Your task to perform on an android device: Open battery settings Image 0: 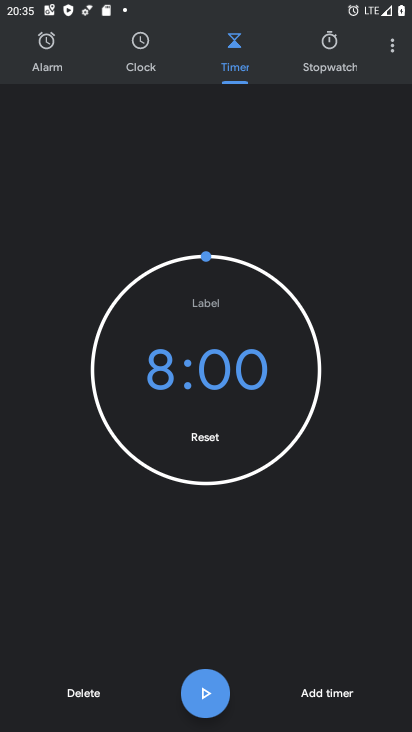
Step 0: press home button
Your task to perform on an android device: Open battery settings Image 1: 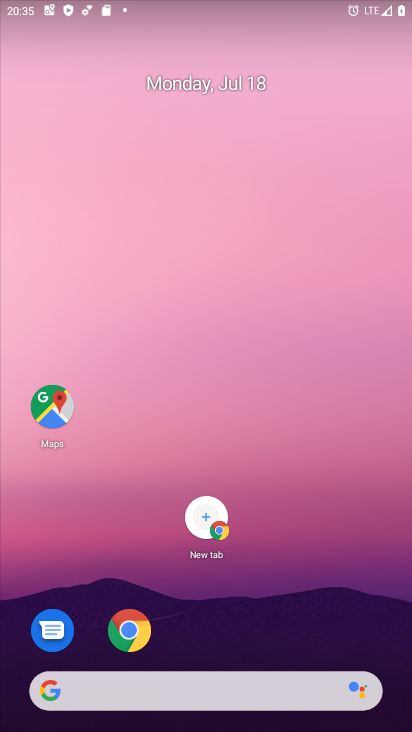
Step 1: drag from (233, 643) to (260, 264)
Your task to perform on an android device: Open battery settings Image 2: 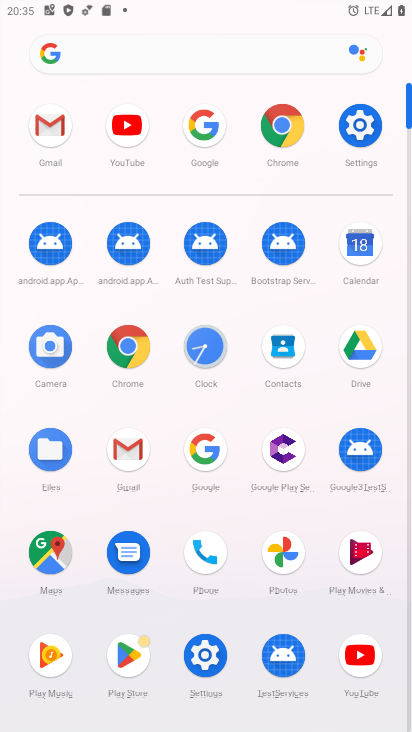
Step 2: click (368, 131)
Your task to perform on an android device: Open battery settings Image 3: 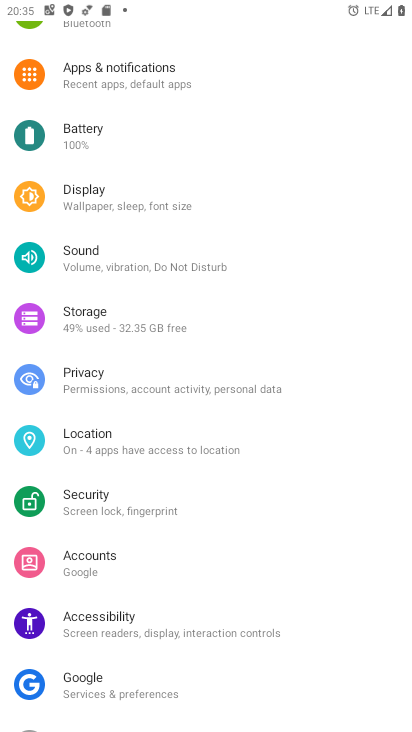
Step 3: click (94, 150)
Your task to perform on an android device: Open battery settings Image 4: 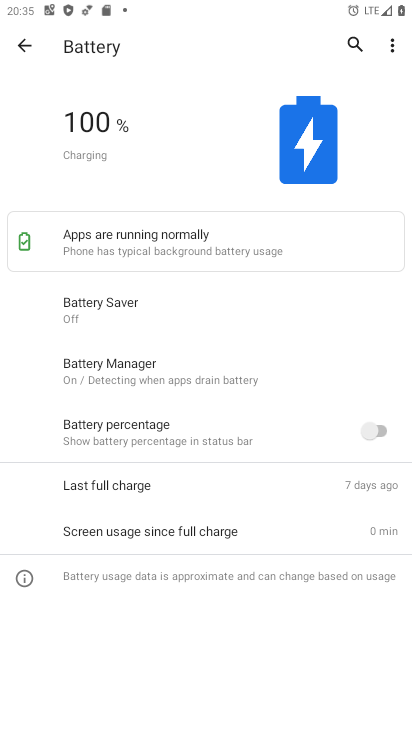
Step 4: task complete